Your task to perform on an android device: Find coffee shops on Maps Image 0: 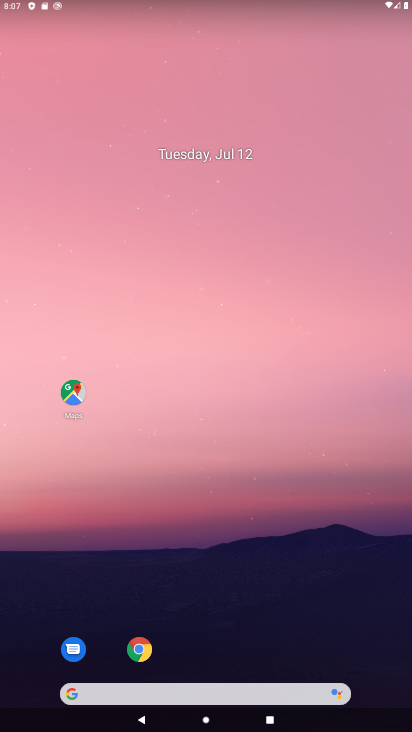
Step 0: drag from (211, 647) to (181, 185)
Your task to perform on an android device: Find coffee shops on Maps Image 1: 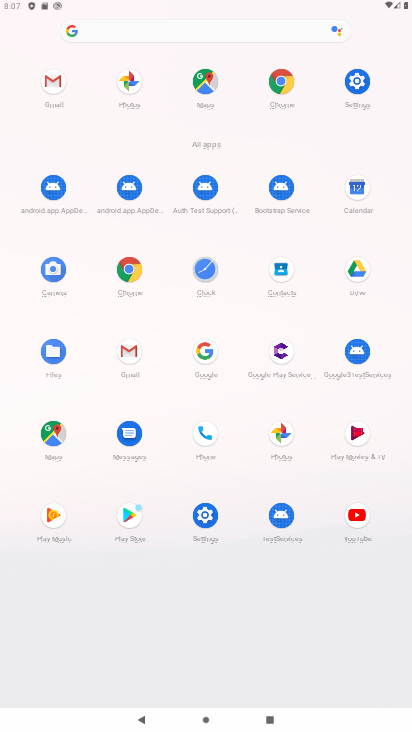
Step 1: click (52, 437)
Your task to perform on an android device: Find coffee shops on Maps Image 2: 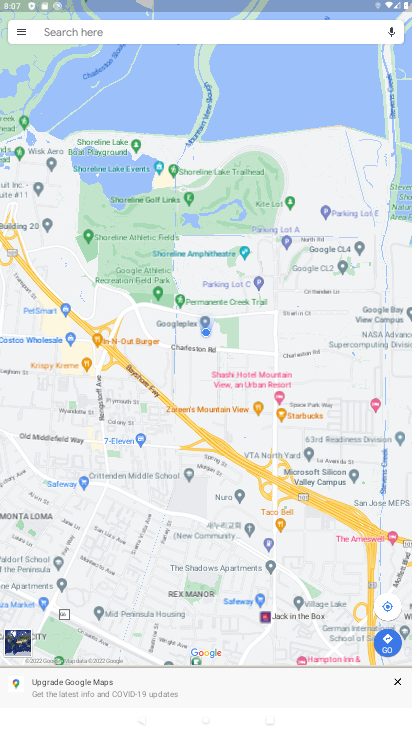
Step 2: click (185, 33)
Your task to perform on an android device: Find coffee shops on Maps Image 3: 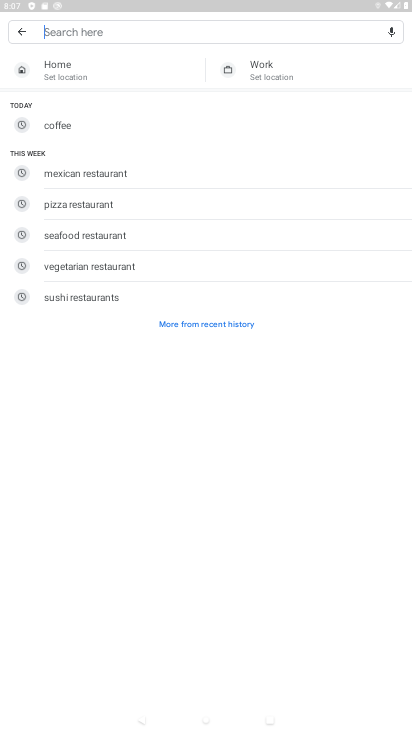
Step 3: click (64, 129)
Your task to perform on an android device: Find coffee shops on Maps Image 4: 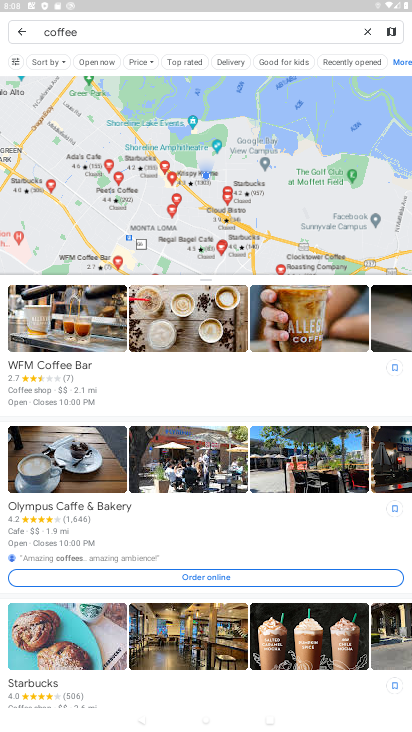
Step 4: task complete